Your task to perform on an android device: Search for pizza restaurants on Maps Image 0: 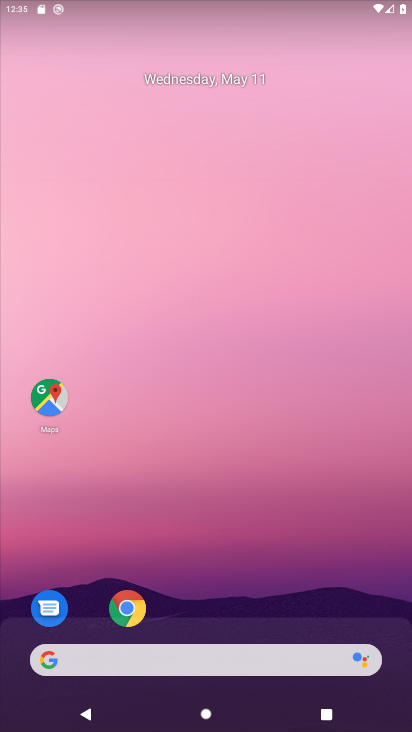
Step 0: click (56, 398)
Your task to perform on an android device: Search for pizza restaurants on Maps Image 1: 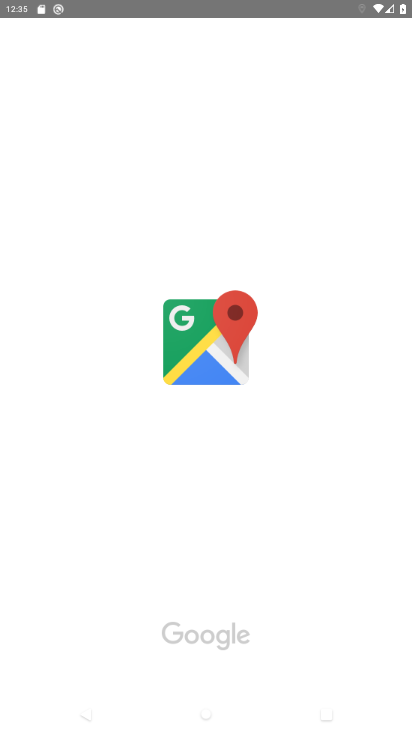
Step 1: click (56, 398)
Your task to perform on an android device: Search for pizza restaurants on Maps Image 2: 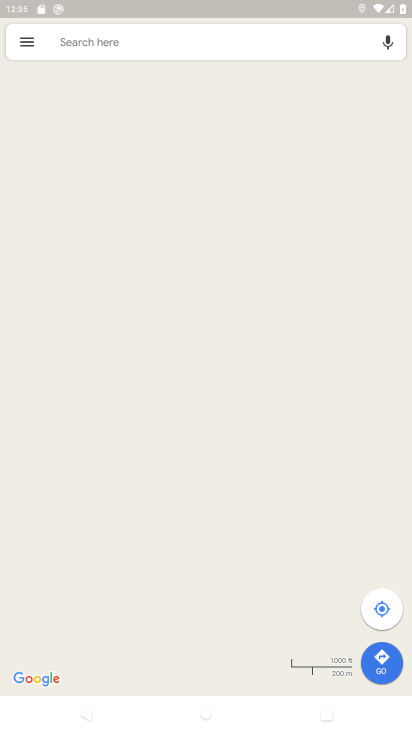
Step 2: click (183, 49)
Your task to perform on an android device: Search for pizza restaurants on Maps Image 3: 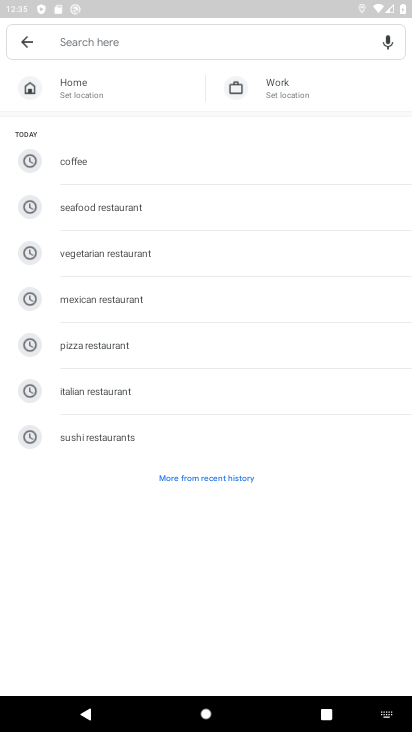
Step 3: type "Pizza restaurants"
Your task to perform on an android device: Search for pizza restaurants on Maps Image 4: 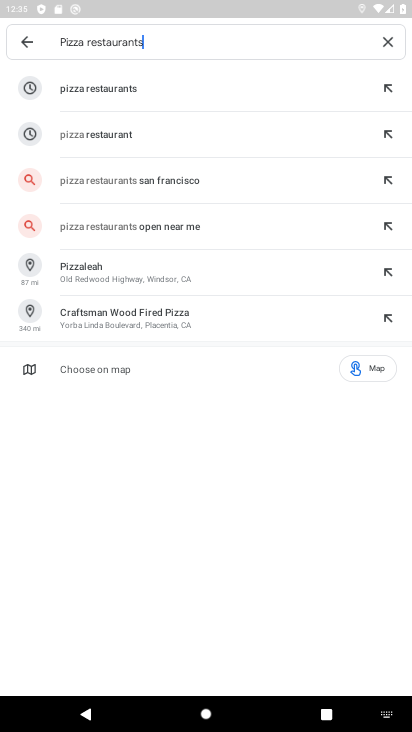
Step 4: click (174, 75)
Your task to perform on an android device: Search for pizza restaurants on Maps Image 5: 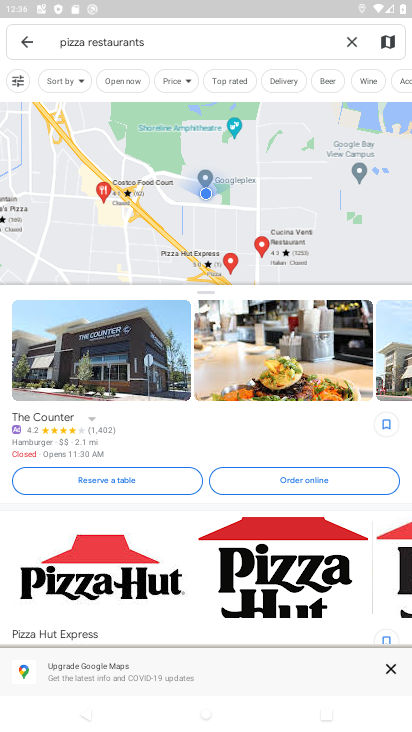
Step 5: task complete